Your task to perform on an android device: toggle priority inbox in the gmail app Image 0: 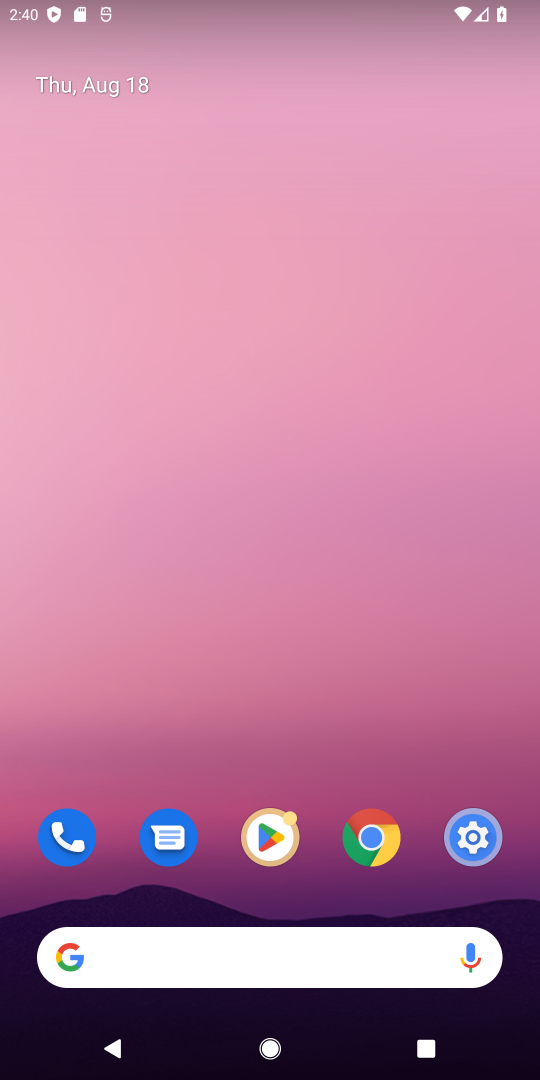
Step 0: drag from (384, 748) to (376, 19)
Your task to perform on an android device: toggle priority inbox in the gmail app Image 1: 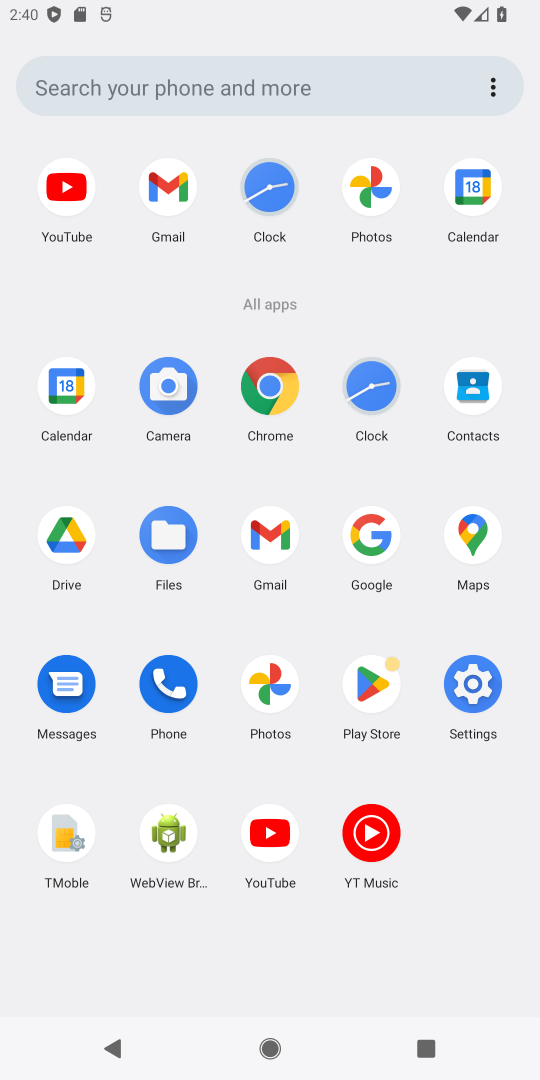
Step 1: click (275, 545)
Your task to perform on an android device: toggle priority inbox in the gmail app Image 2: 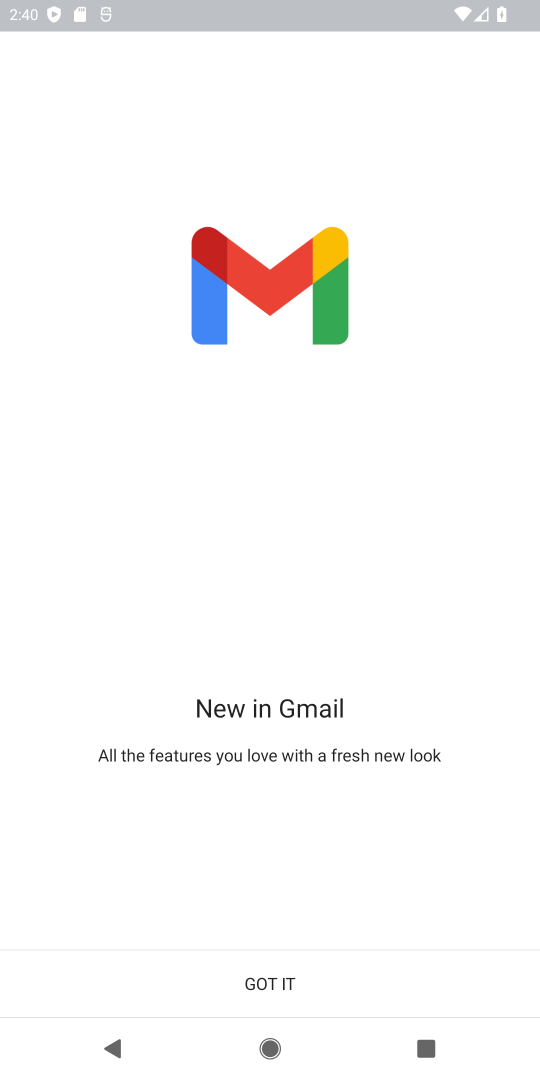
Step 2: click (249, 974)
Your task to perform on an android device: toggle priority inbox in the gmail app Image 3: 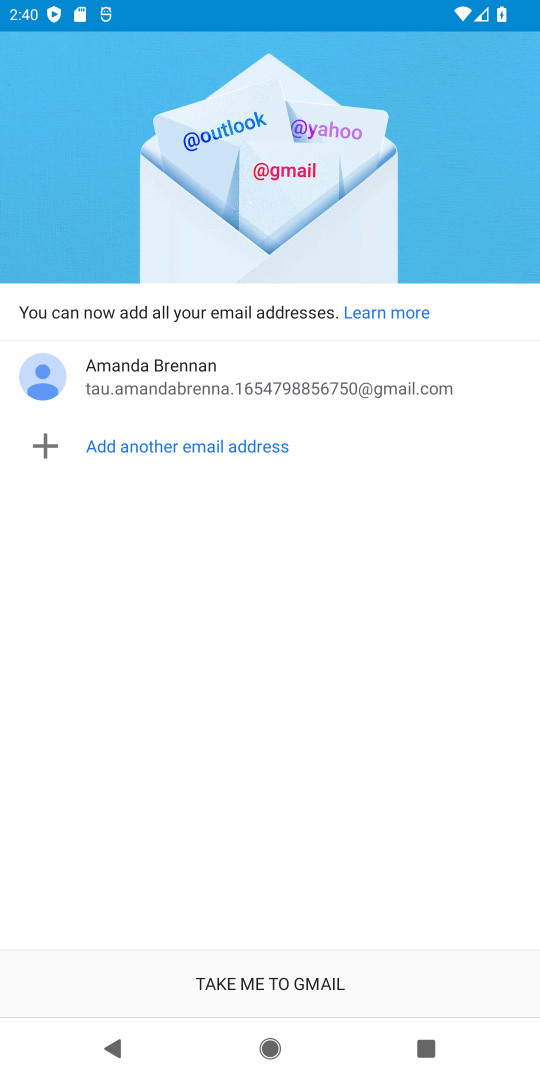
Step 3: click (274, 981)
Your task to perform on an android device: toggle priority inbox in the gmail app Image 4: 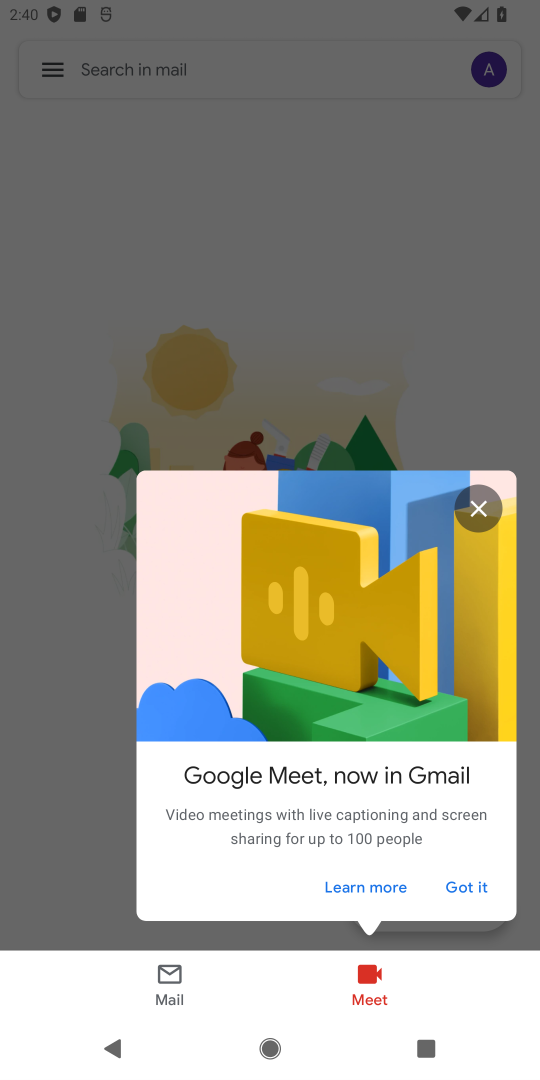
Step 4: click (463, 509)
Your task to perform on an android device: toggle priority inbox in the gmail app Image 5: 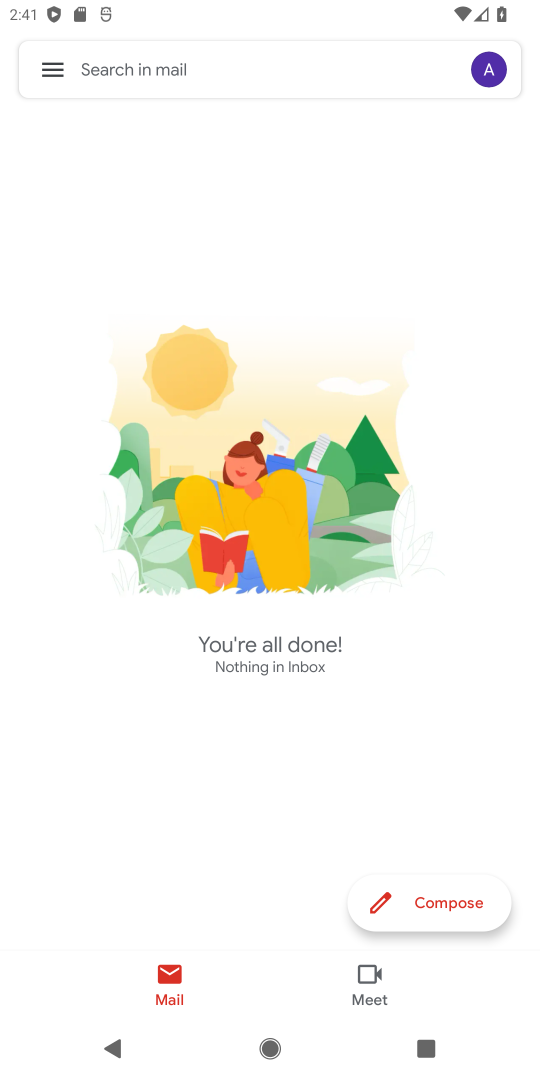
Step 5: click (55, 62)
Your task to perform on an android device: toggle priority inbox in the gmail app Image 6: 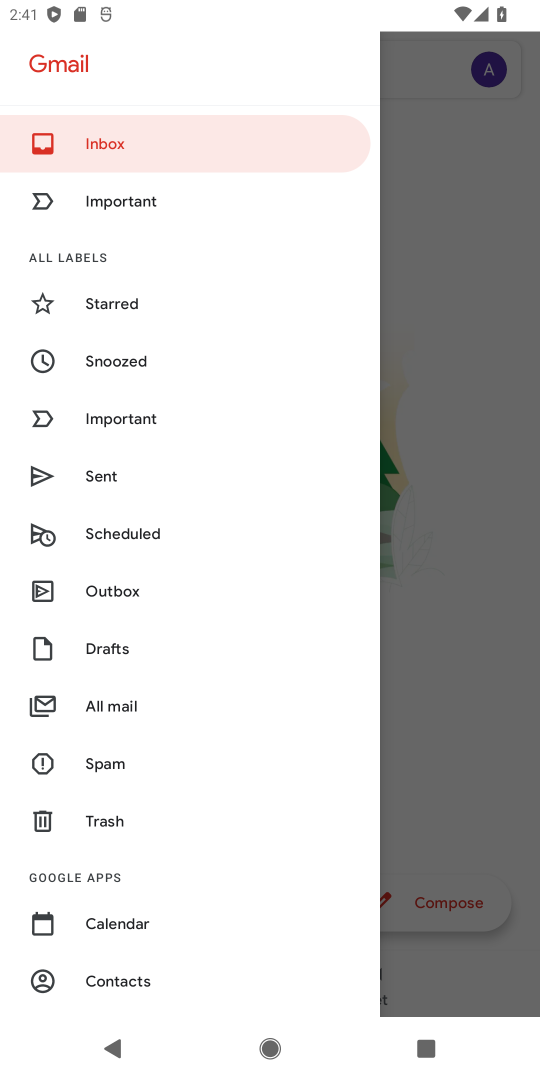
Step 6: drag from (152, 916) to (328, 464)
Your task to perform on an android device: toggle priority inbox in the gmail app Image 7: 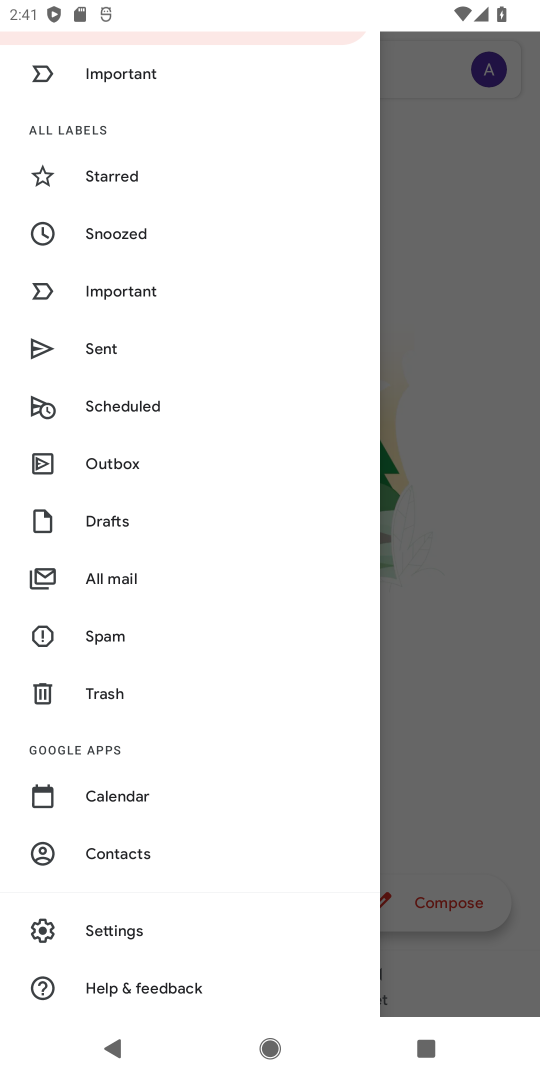
Step 7: click (116, 945)
Your task to perform on an android device: toggle priority inbox in the gmail app Image 8: 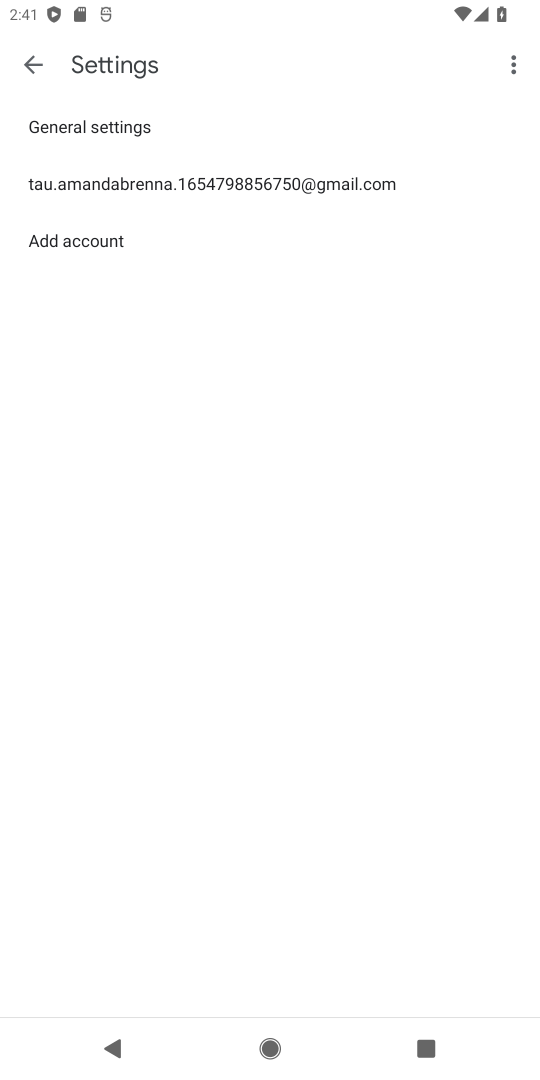
Step 8: click (249, 187)
Your task to perform on an android device: toggle priority inbox in the gmail app Image 9: 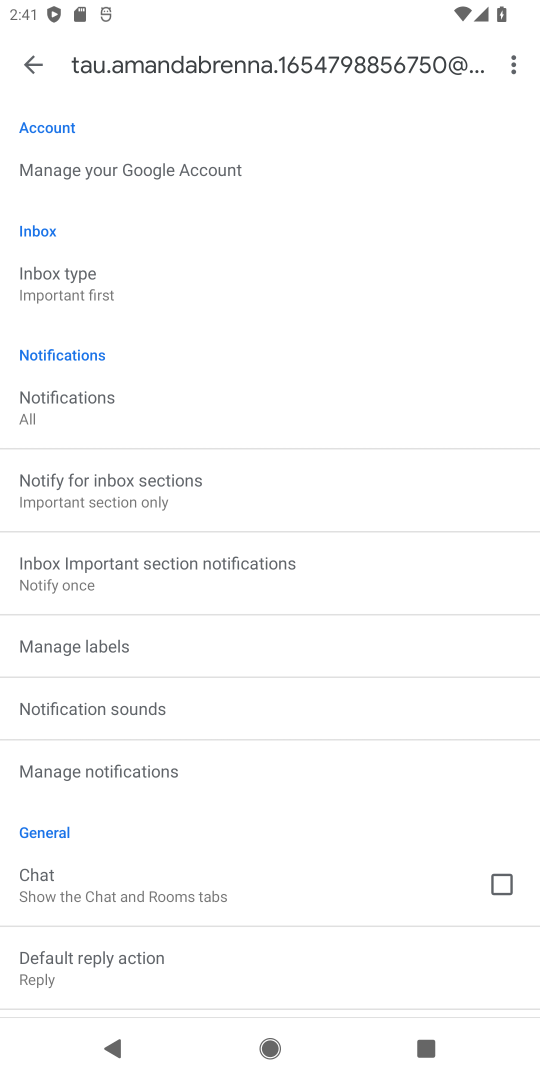
Step 9: click (89, 285)
Your task to perform on an android device: toggle priority inbox in the gmail app Image 10: 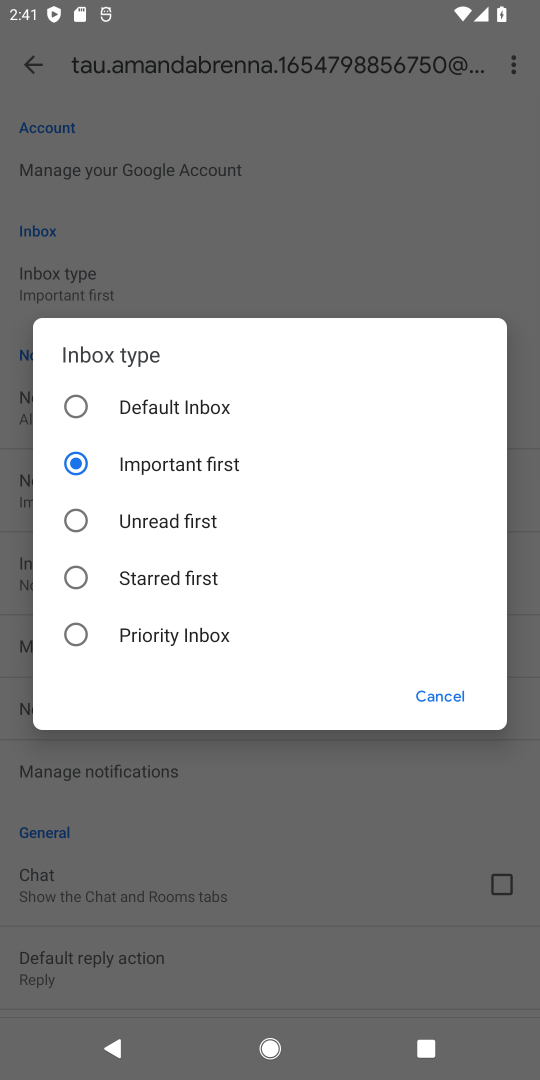
Step 10: click (143, 640)
Your task to perform on an android device: toggle priority inbox in the gmail app Image 11: 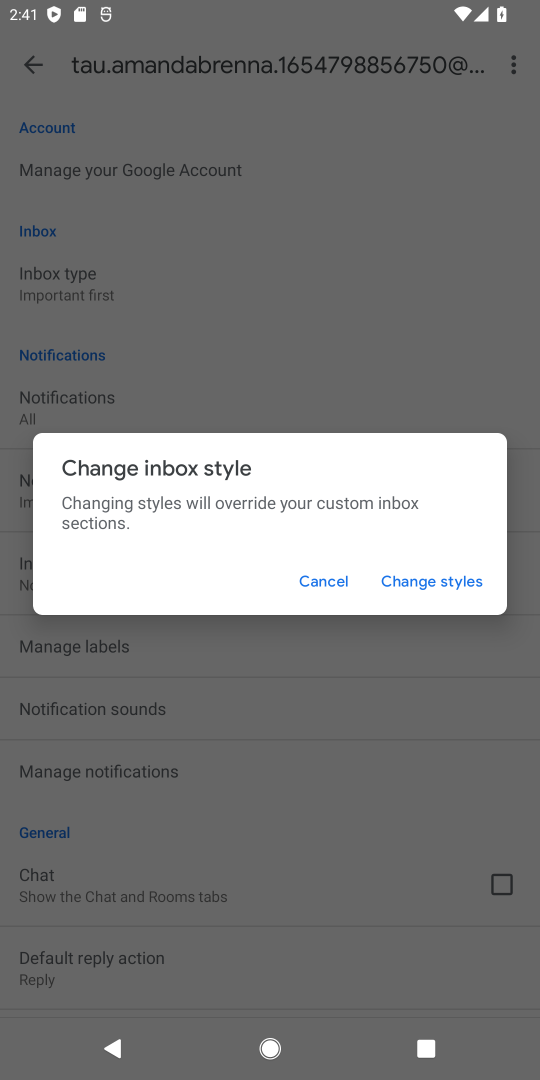
Step 11: click (407, 586)
Your task to perform on an android device: toggle priority inbox in the gmail app Image 12: 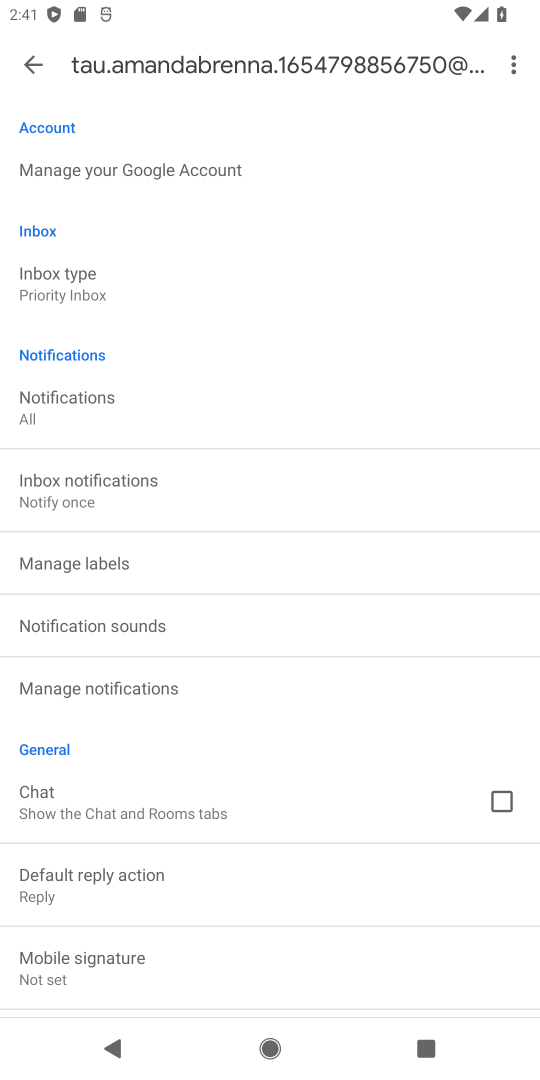
Step 12: task complete